Your task to perform on an android device: Search for vegetarian restaurants on Maps Image 0: 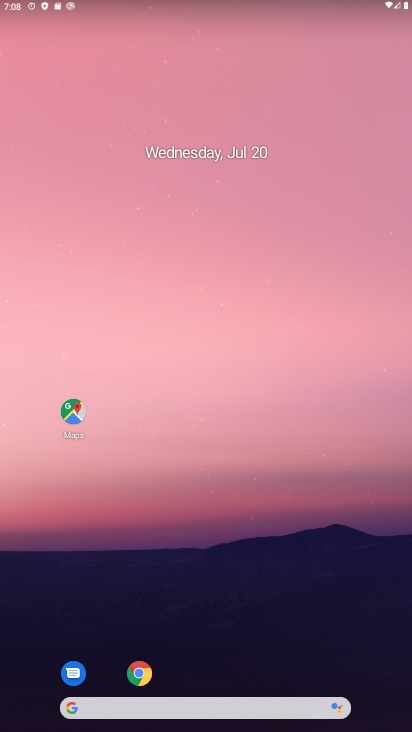
Step 0: drag from (387, 665) to (381, 22)
Your task to perform on an android device: Search for vegetarian restaurants on Maps Image 1: 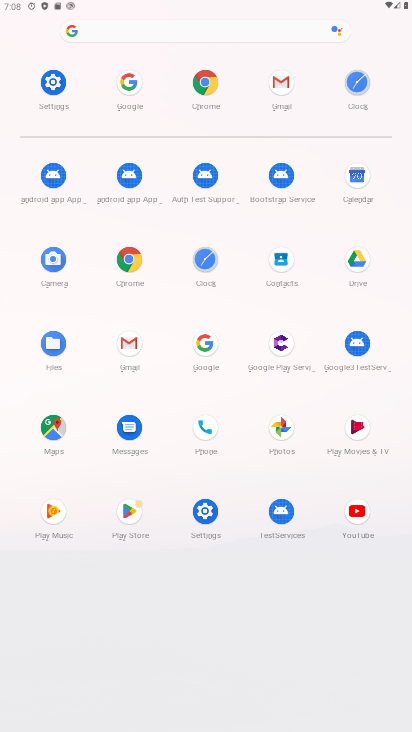
Step 1: click (47, 432)
Your task to perform on an android device: Search for vegetarian restaurants on Maps Image 2: 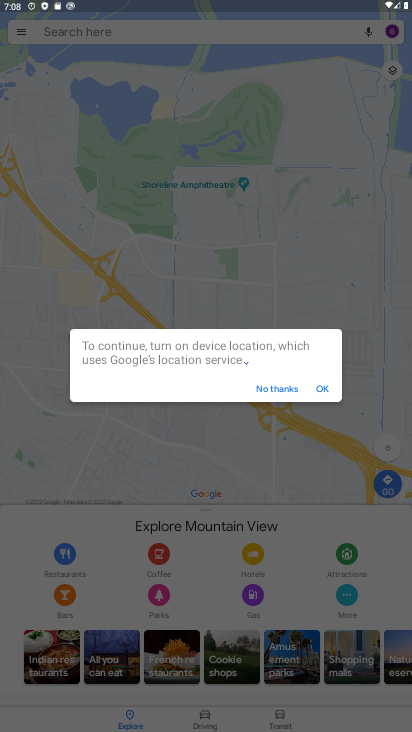
Step 2: click (318, 388)
Your task to perform on an android device: Search for vegetarian restaurants on Maps Image 3: 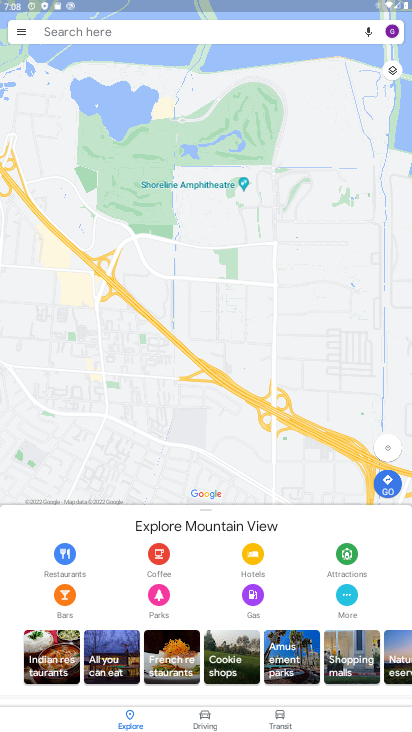
Step 3: click (102, 28)
Your task to perform on an android device: Search for vegetarian restaurants on Maps Image 4: 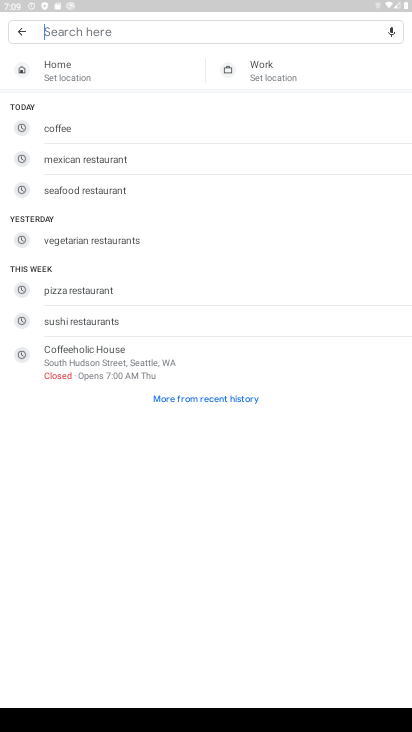
Step 4: click (99, 249)
Your task to perform on an android device: Search for vegetarian restaurants on Maps Image 5: 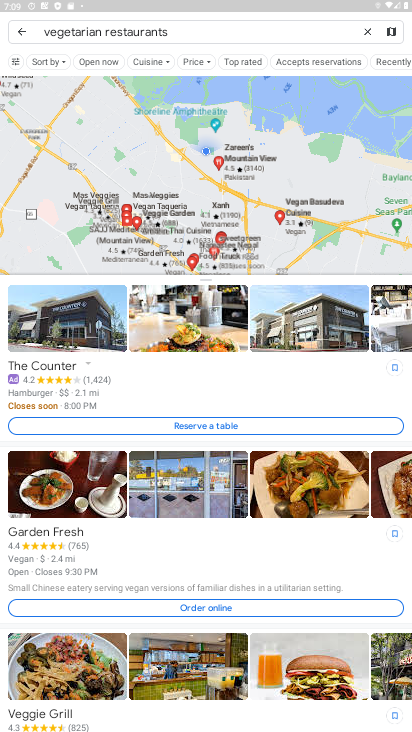
Step 5: task complete